Your task to perform on an android device: empty trash in google photos Image 0: 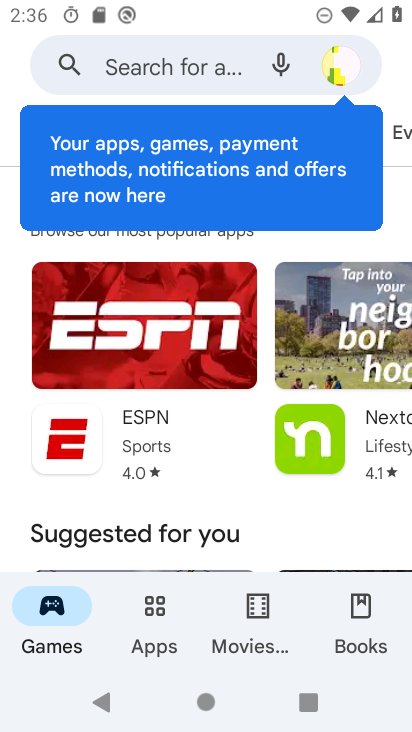
Step 0: press home button
Your task to perform on an android device: empty trash in google photos Image 1: 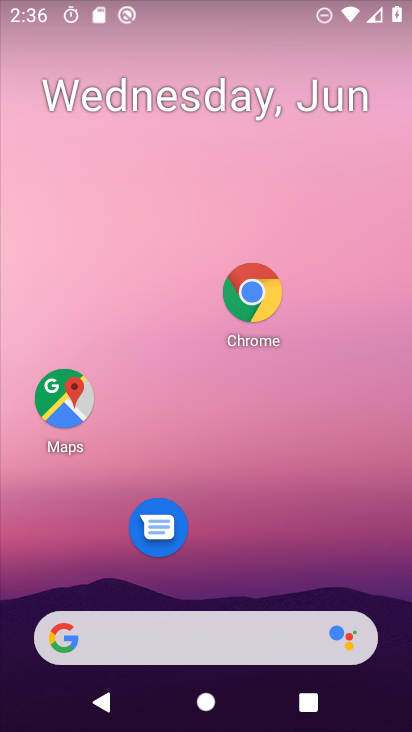
Step 1: drag from (268, 572) to (221, 145)
Your task to perform on an android device: empty trash in google photos Image 2: 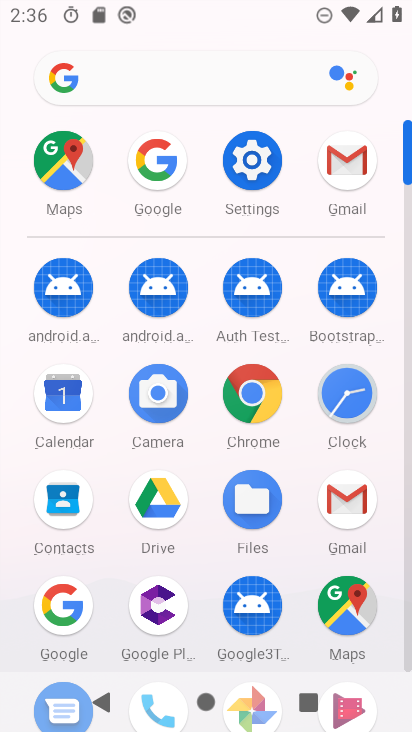
Step 2: drag from (211, 489) to (211, 305)
Your task to perform on an android device: empty trash in google photos Image 3: 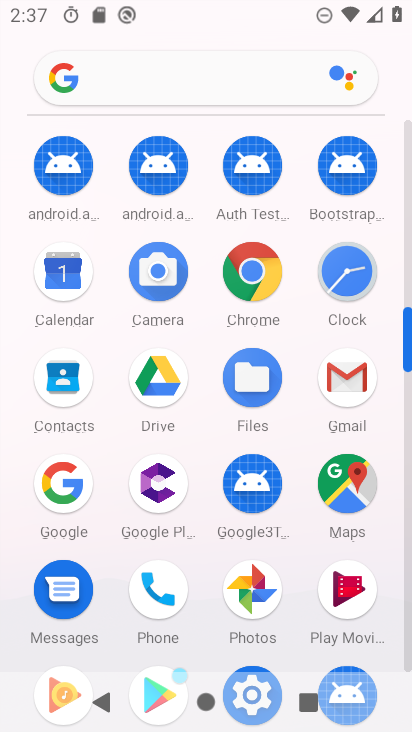
Step 3: click (258, 597)
Your task to perform on an android device: empty trash in google photos Image 4: 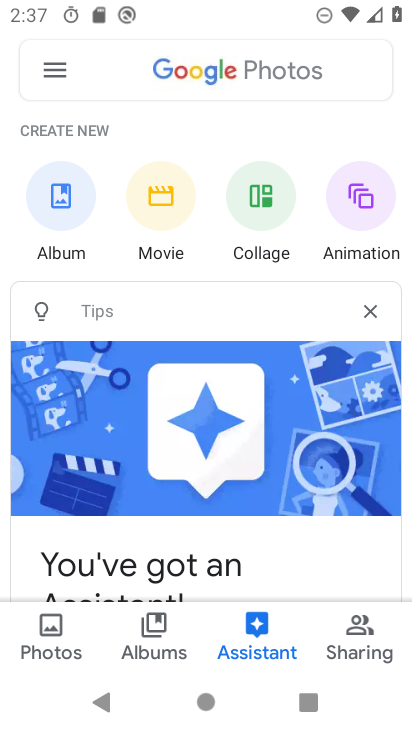
Step 4: click (57, 622)
Your task to perform on an android device: empty trash in google photos Image 5: 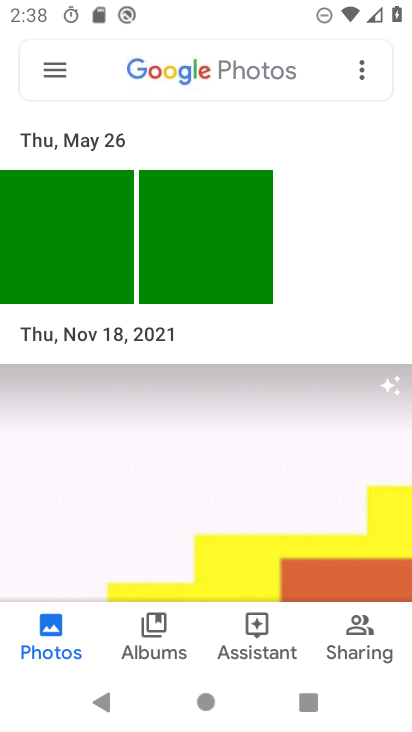
Step 5: click (61, 73)
Your task to perform on an android device: empty trash in google photos Image 6: 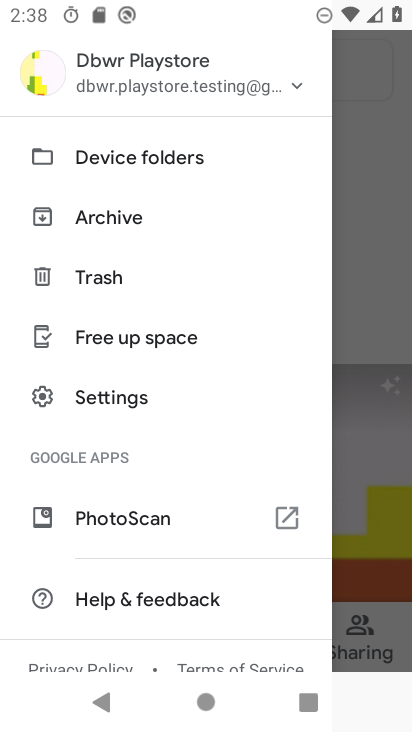
Step 6: click (116, 270)
Your task to perform on an android device: empty trash in google photos Image 7: 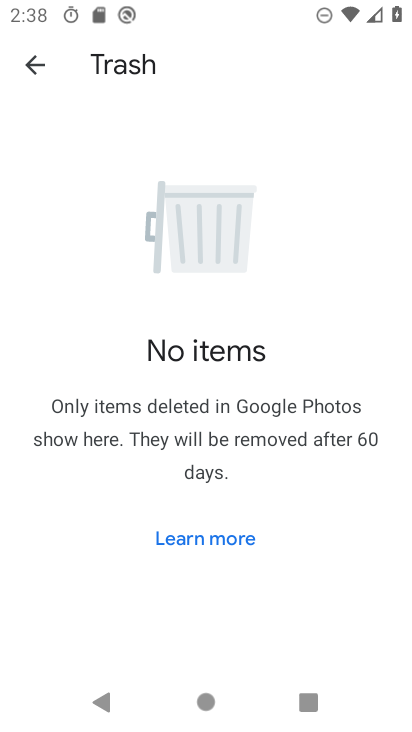
Step 7: task complete